Your task to perform on an android device: toggle priority inbox in the gmail app Image 0: 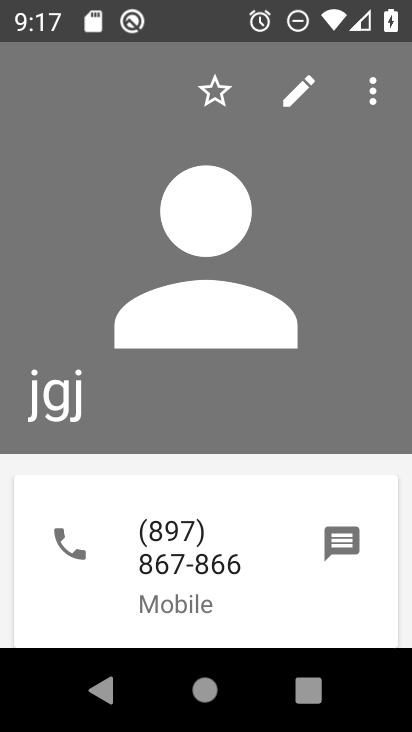
Step 0: press home button
Your task to perform on an android device: toggle priority inbox in the gmail app Image 1: 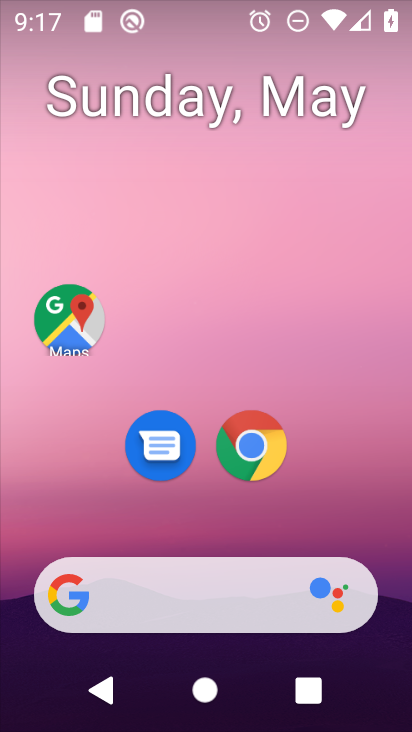
Step 1: drag from (231, 596) to (287, 180)
Your task to perform on an android device: toggle priority inbox in the gmail app Image 2: 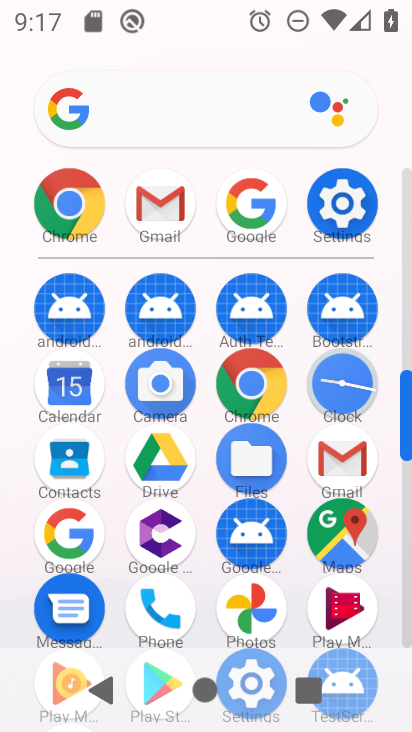
Step 2: click (342, 470)
Your task to perform on an android device: toggle priority inbox in the gmail app Image 3: 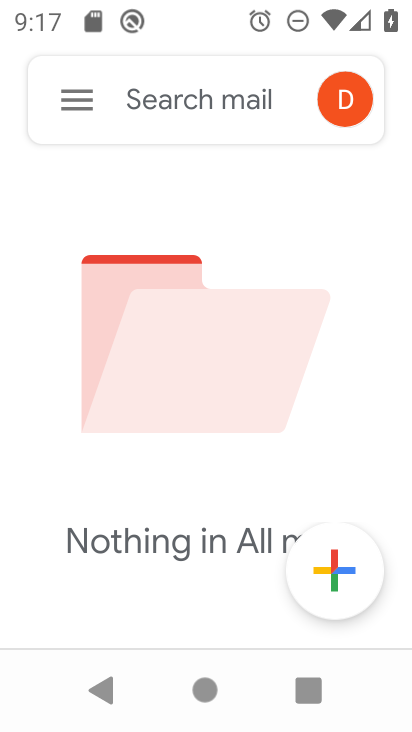
Step 3: click (77, 107)
Your task to perform on an android device: toggle priority inbox in the gmail app Image 4: 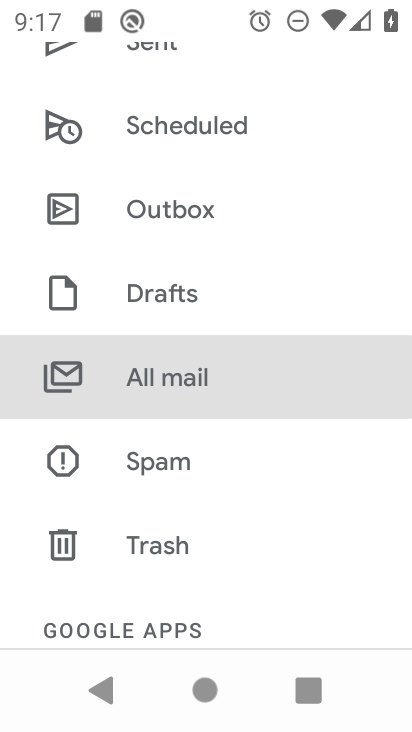
Step 4: drag from (141, 516) to (221, 210)
Your task to perform on an android device: toggle priority inbox in the gmail app Image 5: 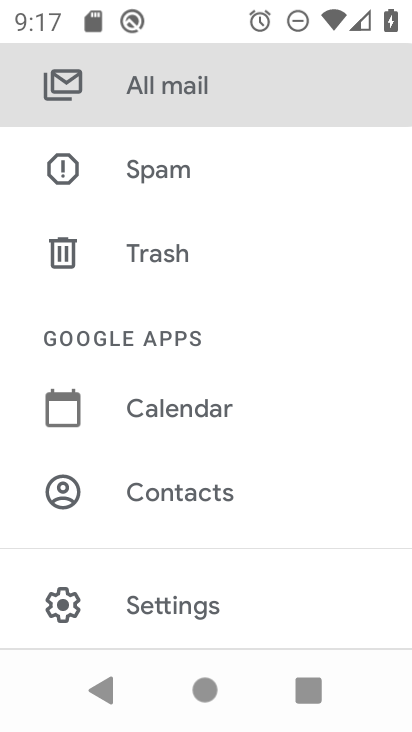
Step 5: click (156, 603)
Your task to perform on an android device: toggle priority inbox in the gmail app Image 6: 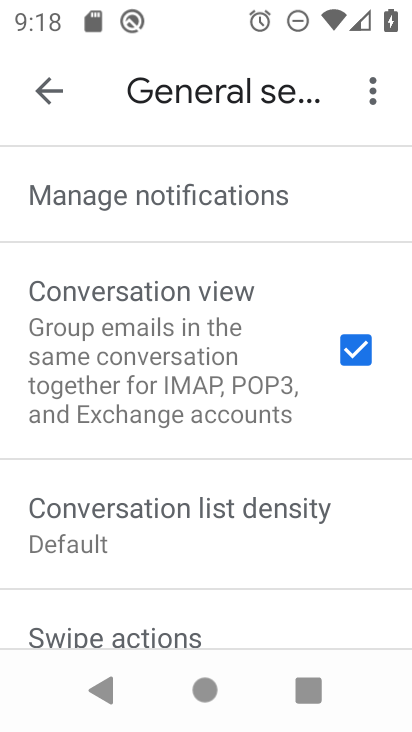
Step 6: click (63, 96)
Your task to perform on an android device: toggle priority inbox in the gmail app Image 7: 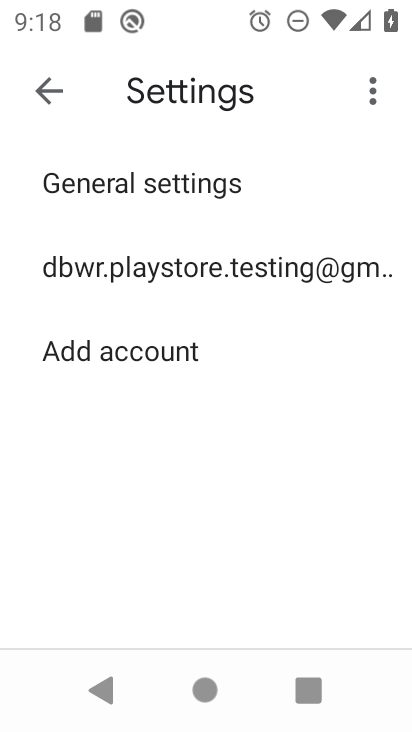
Step 7: click (124, 272)
Your task to perform on an android device: toggle priority inbox in the gmail app Image 8: 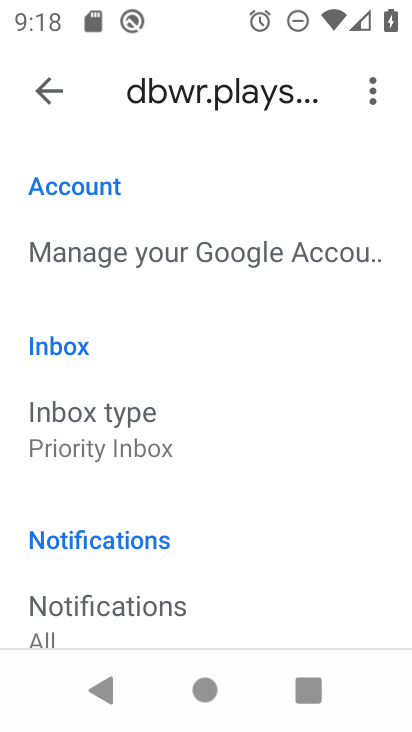
Step 8: click (118, 447)
Your task to perform on an android device: toggle priority inbox in the gmail app Image 9: 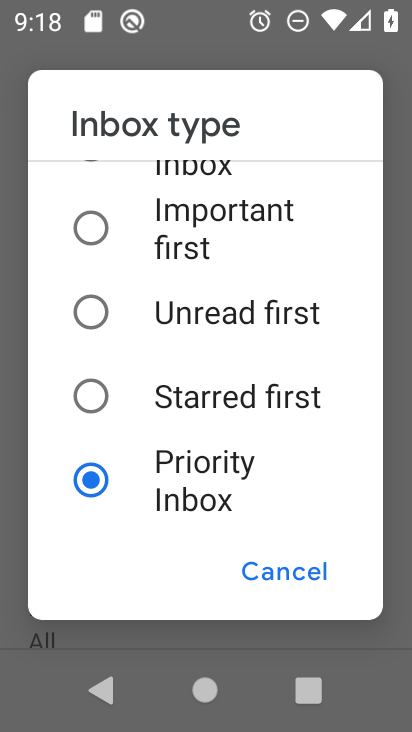
Step 9: click (82, 435)
Your task to perform on an android device: toggle priority inbox in the gmail app Image 10: 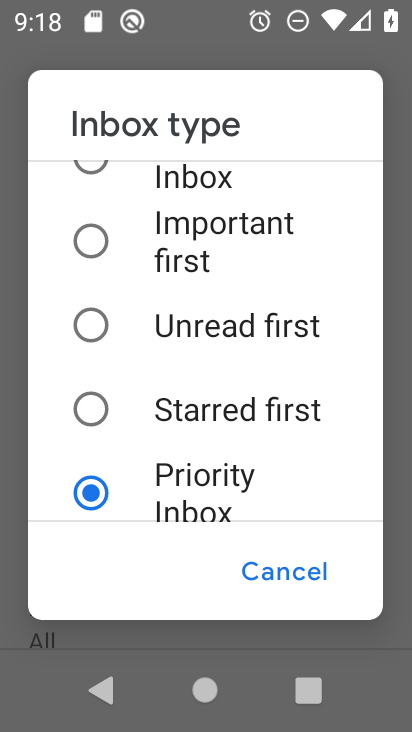
Step 10: click (102, 336)
Your task to perform on an android device: toggle priority inbox in the gmail app Image 11: 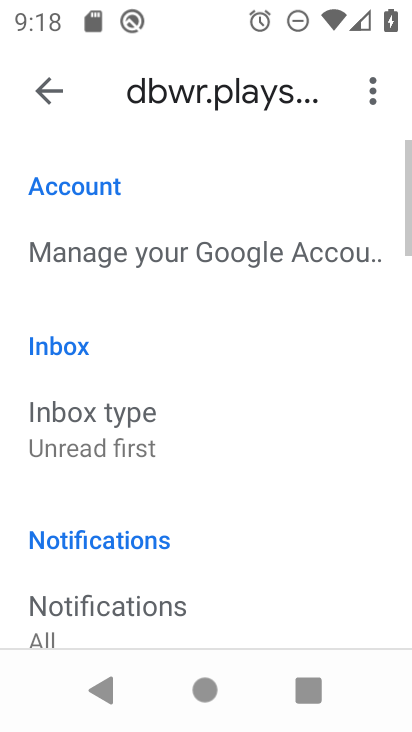
Step 11: task complete